Your task to perform on an android device: open app "Messenger Lite" (install if not already installed) Image 0: 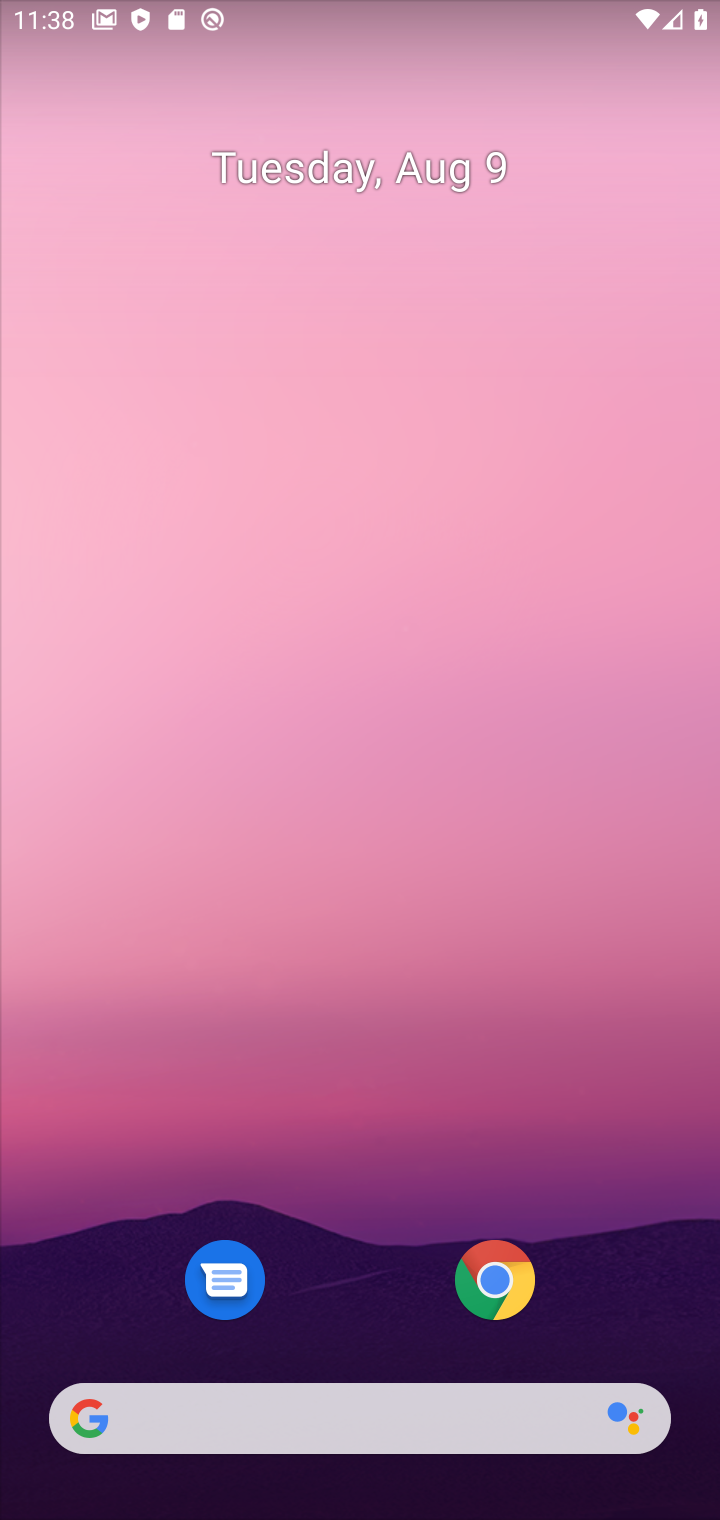
Step 0: drag from (415, 932) to (541, 52)
Your task to perform on an android device: open app "Messenger Lite" (install if not already installed) Image 1: 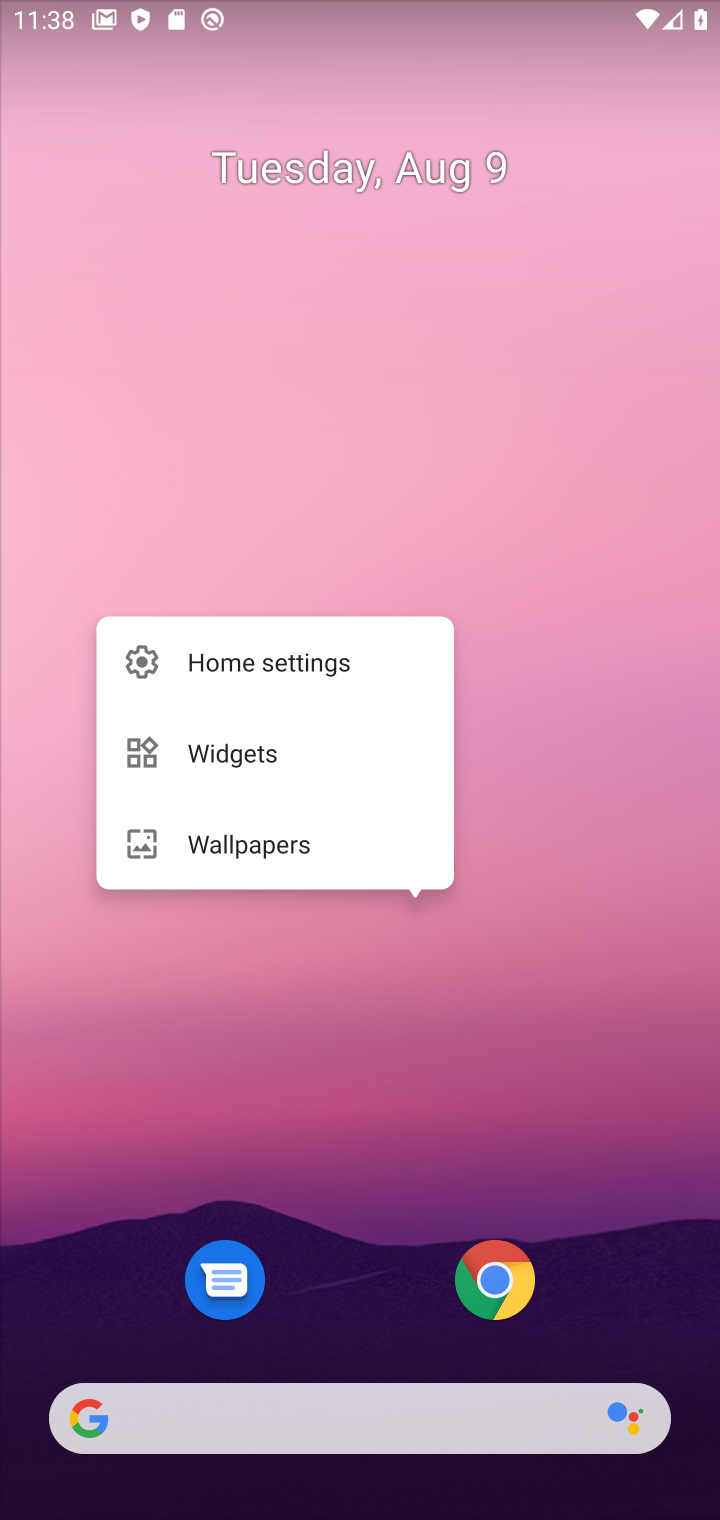
Step 1: click (382, 1147)
Your task to perform on an android device: open app "Messenger Lite" (install if not already installed) Image 2: 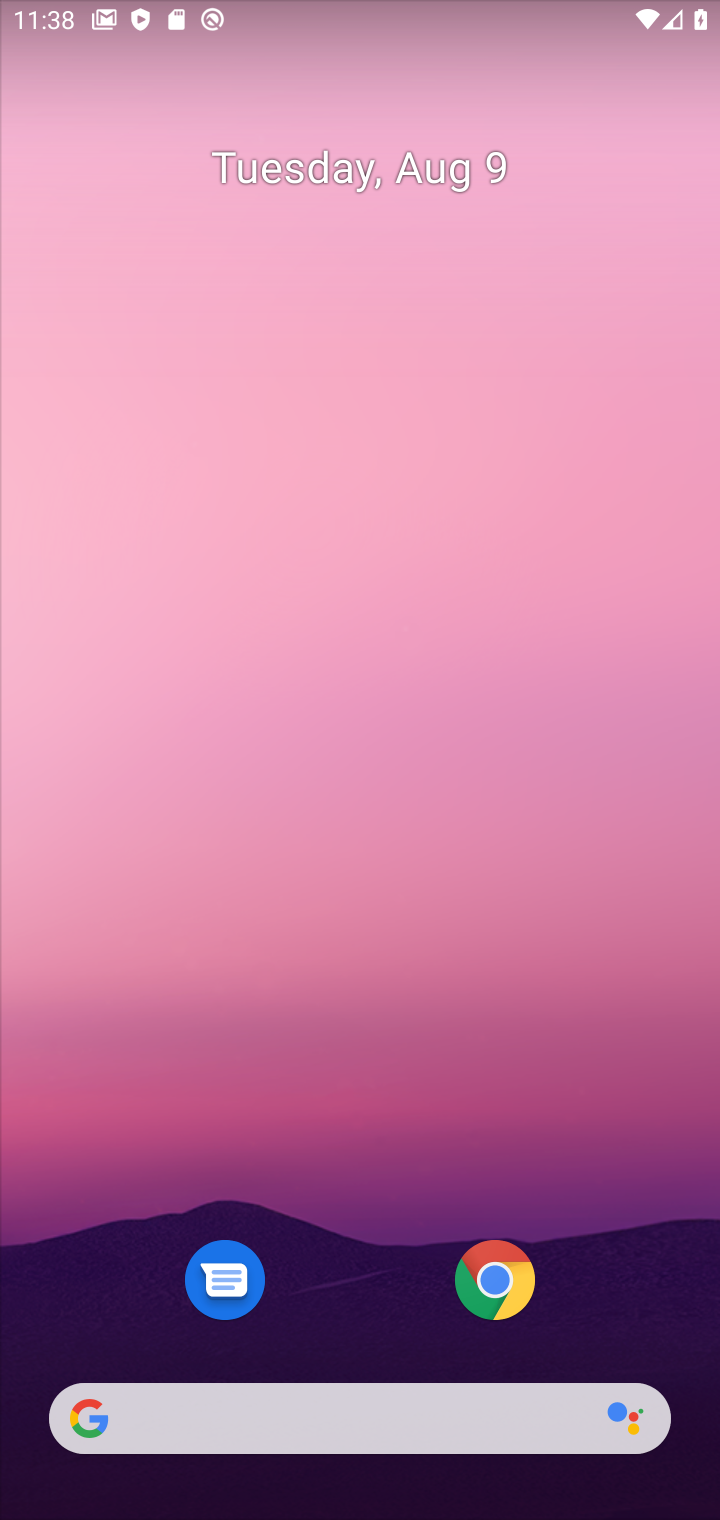
Step 2: drag from (349, 1238) to (577, 71)
Your task to perform on an android device: open app "Messenger Lite" (install if not already installed) Image 3: 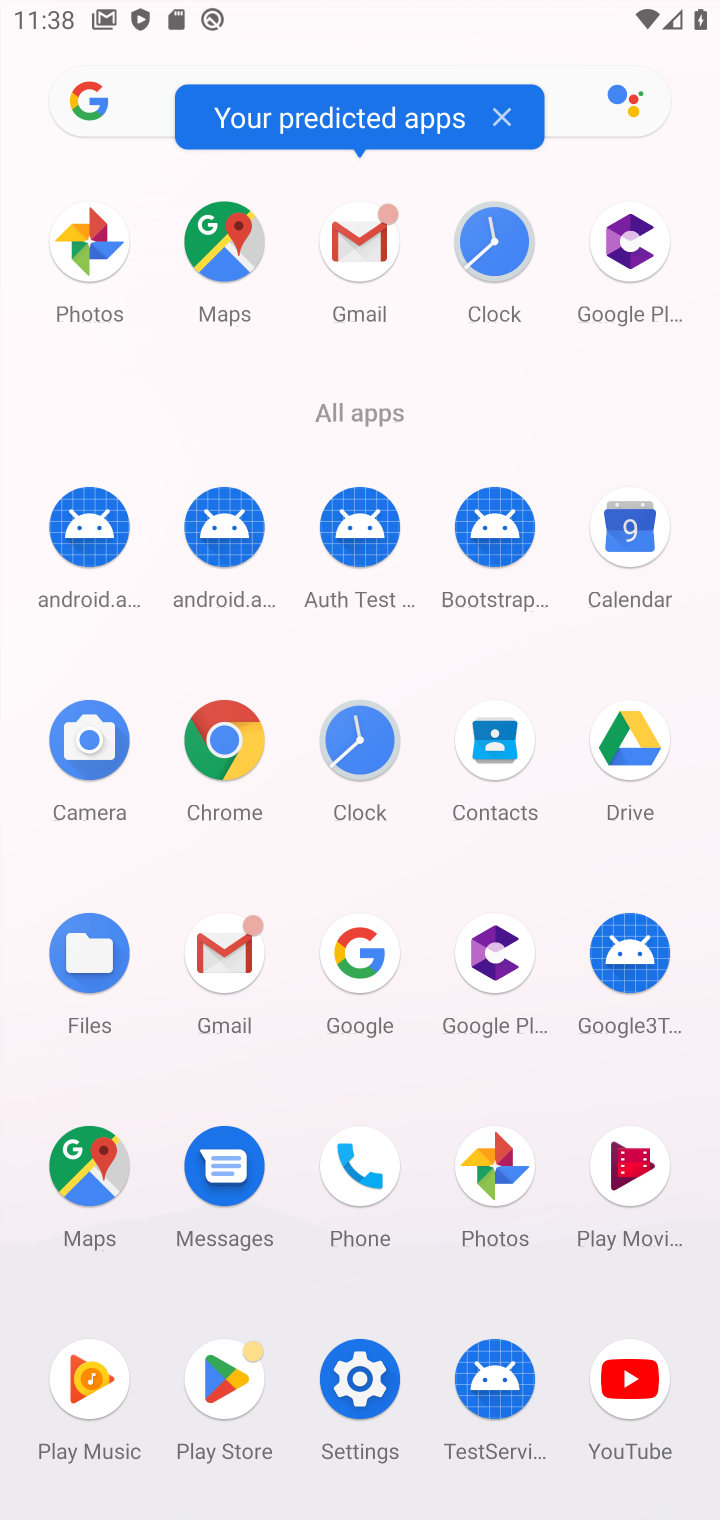
Step 3: click (229, 1375)
Your task to perform on an android device: open app "Messenger Lite" (install if not already installed) Image 4: 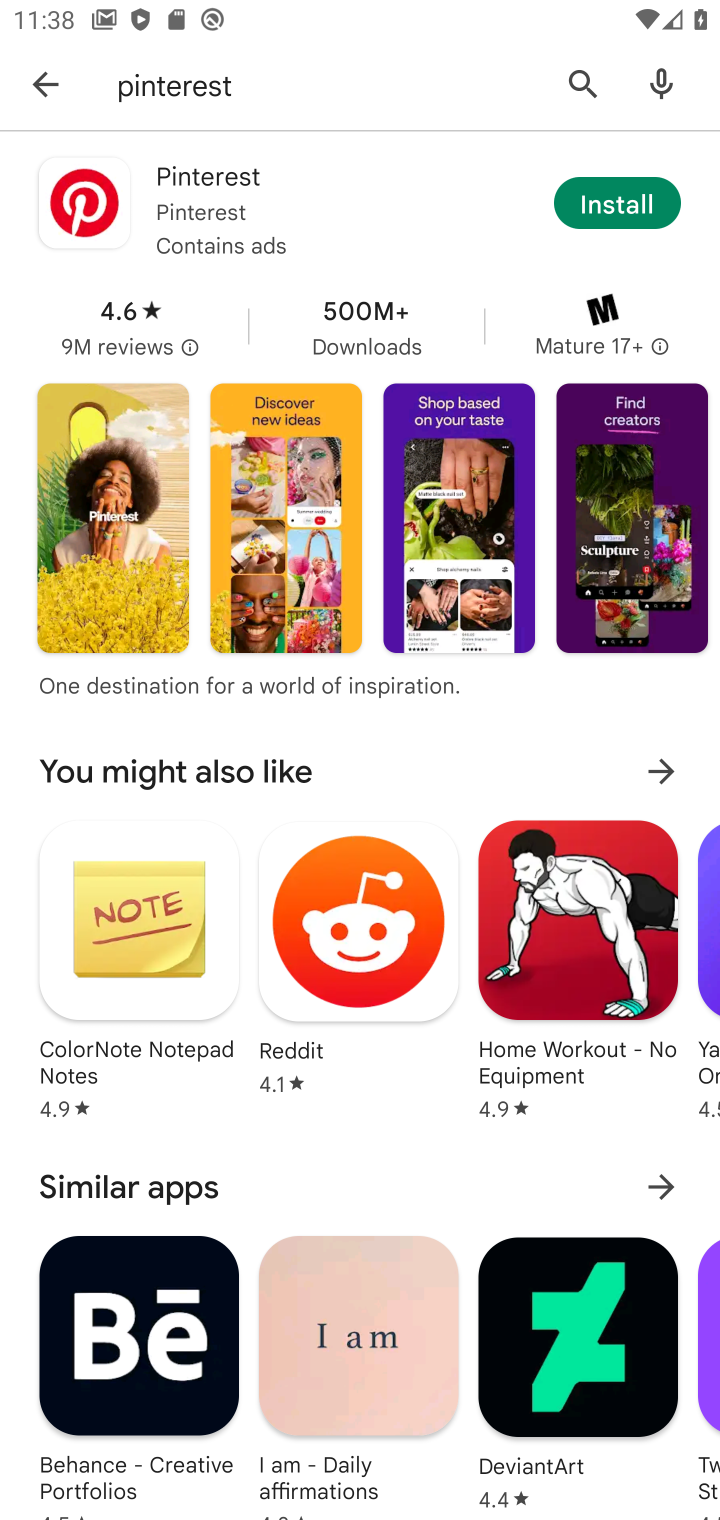
Step 4: click (574, 59)
Your task to perform on an android device: open app "Messenger Lite" (install if not already installed) Image 5: 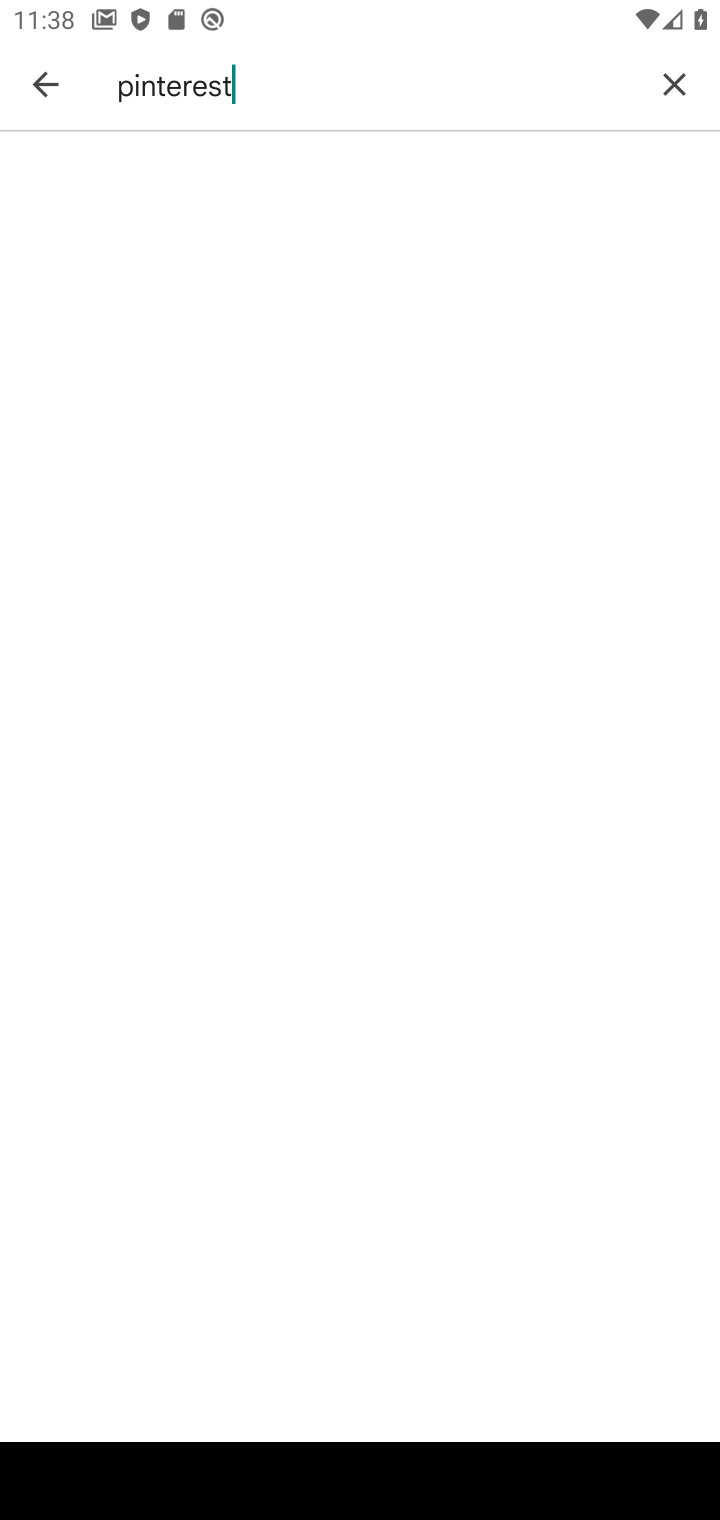
Step 5: click (676, 81)
Your task to perform on an android device: open app "Messenger Lite" (install if not already installed) Image 6: 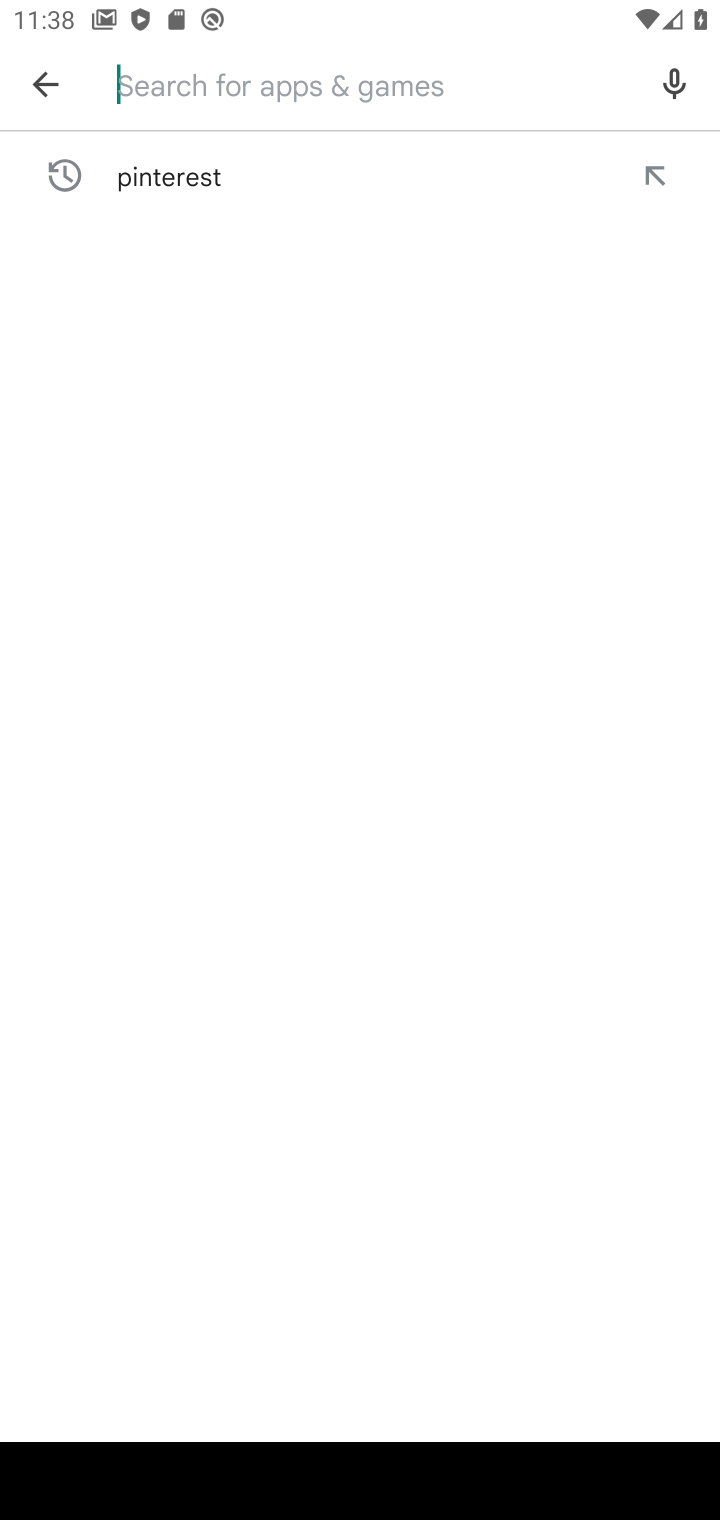
Step 6: click (338, 88)
Your task to perform on an android device: open app "Messenger Lite" (install if not already installed) Image 7: 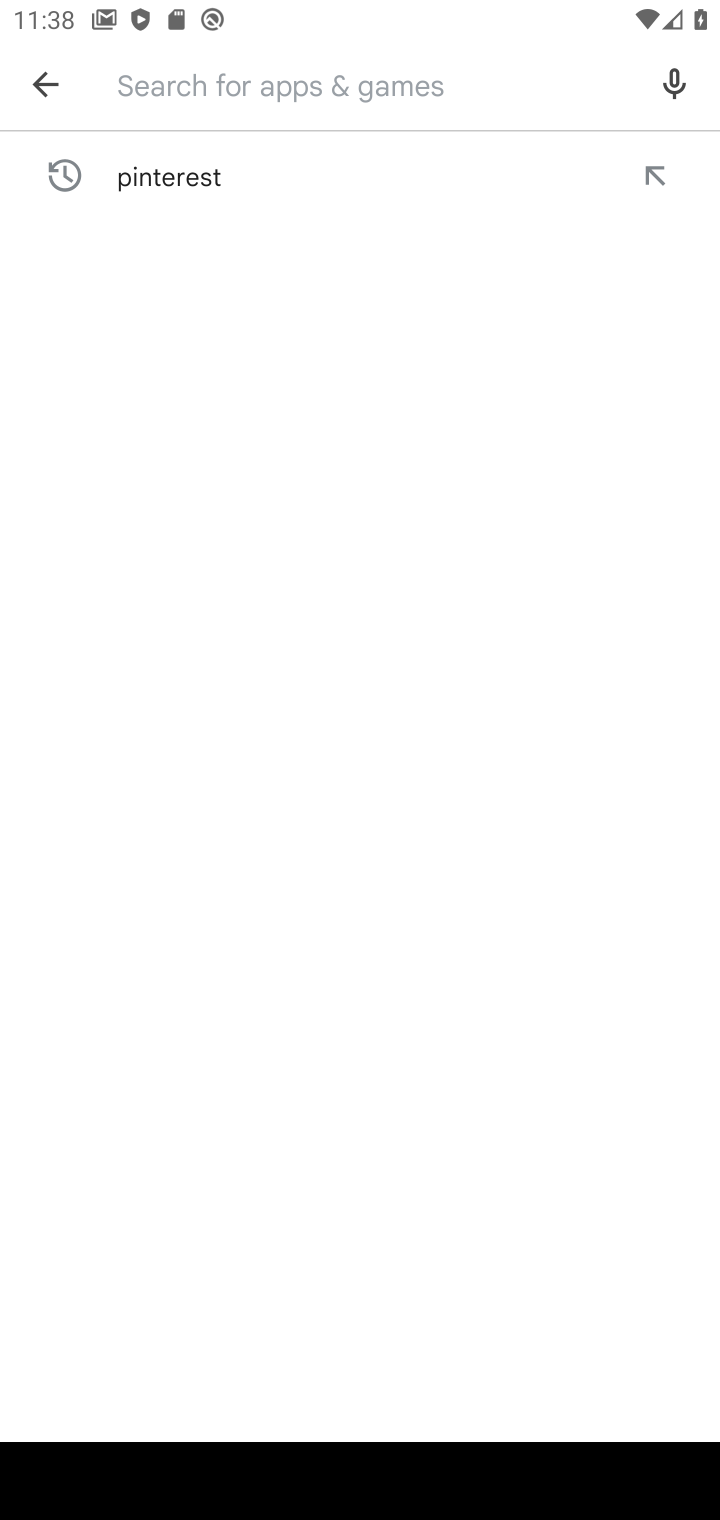
Step 7: click (269, 88)
Your task to perform on an android device: open app "Messenger Lite" (install if not already installed) Image 8: 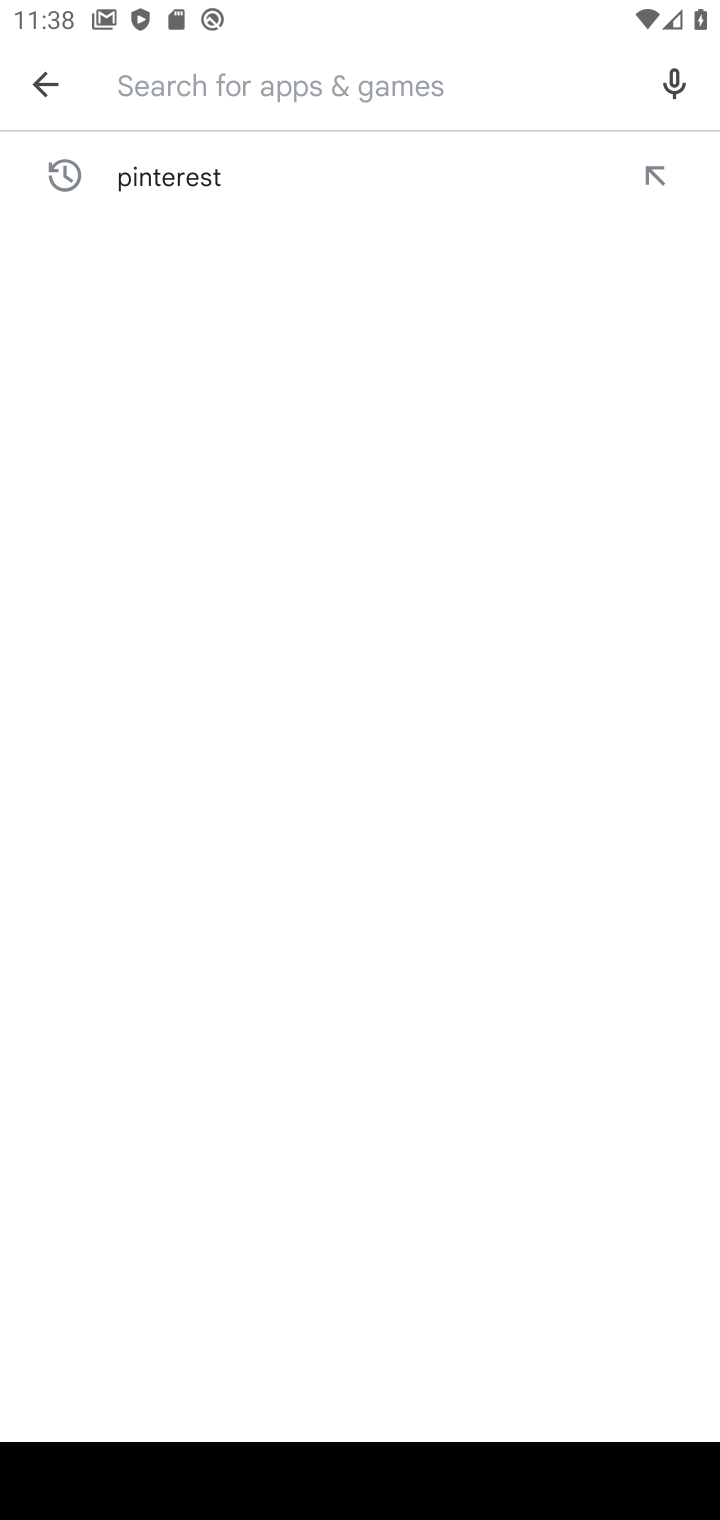
Step 8: type "Messenger Lite"
Your task to perform on an android device: open app "Messenger Lite" (install if not already installed) Image 9: 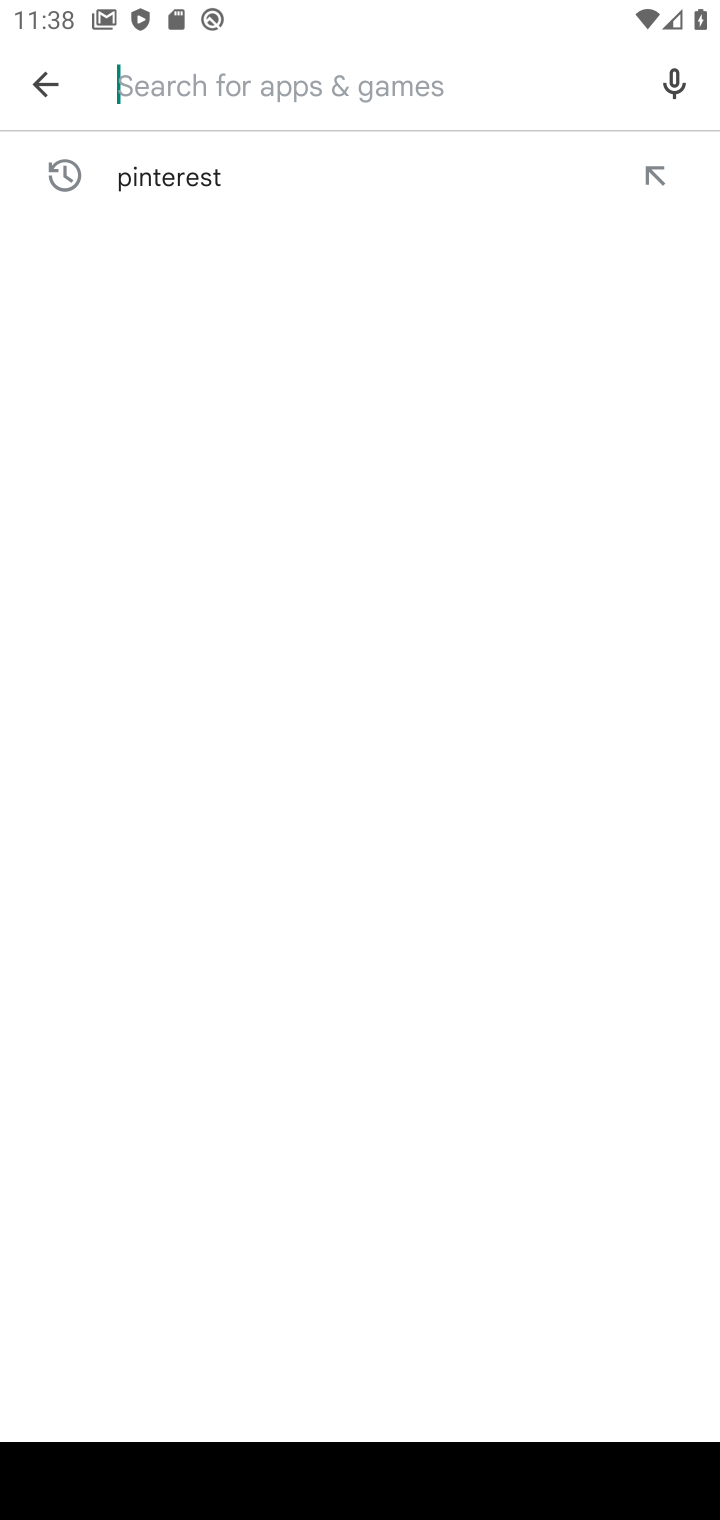
Step 9: click (537, 841)
Your task to perform on an android device: open app "Messenger Lite" (install if not already installed) Image 10: 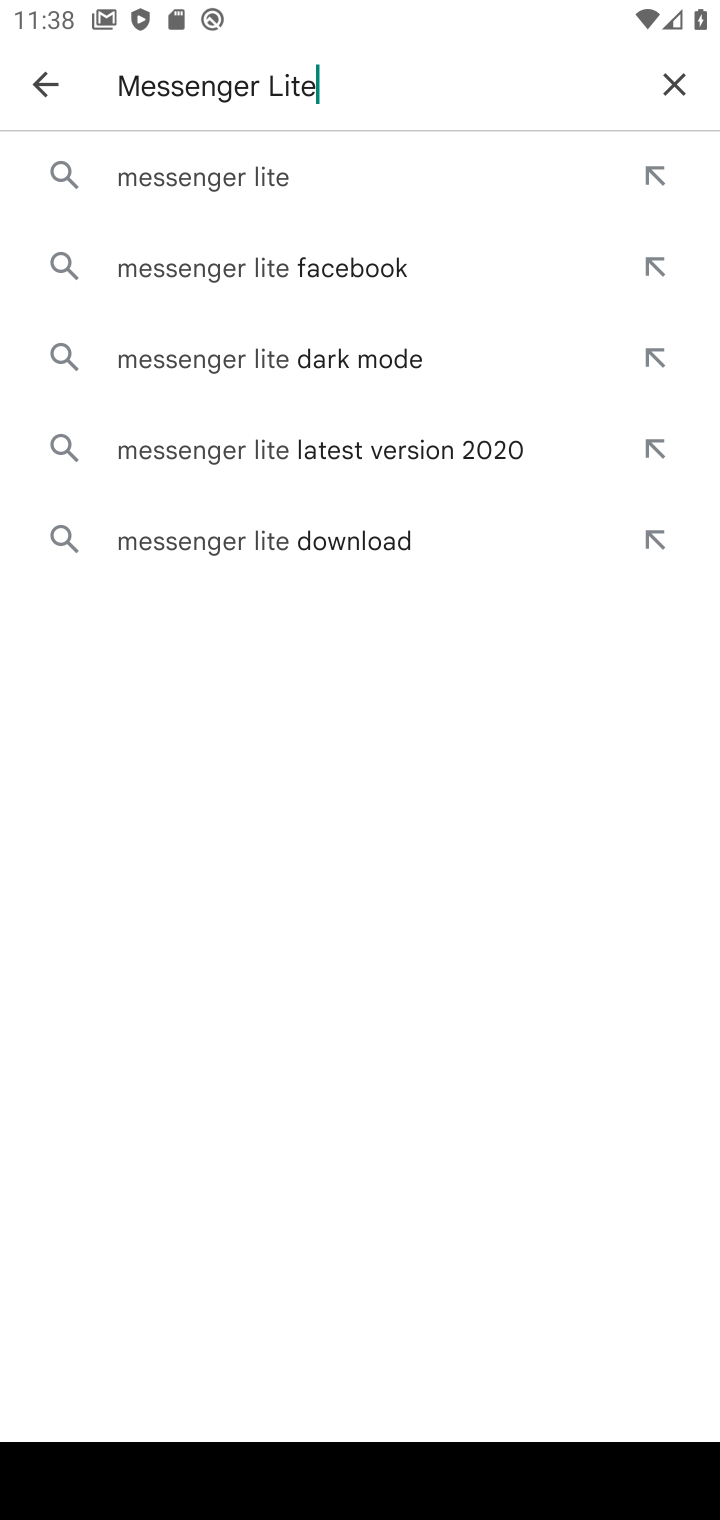
Step 10: click (261, 180)
Your task to perform on an android device: open app "Messenger Lite" (install if not already installed) Image 11: 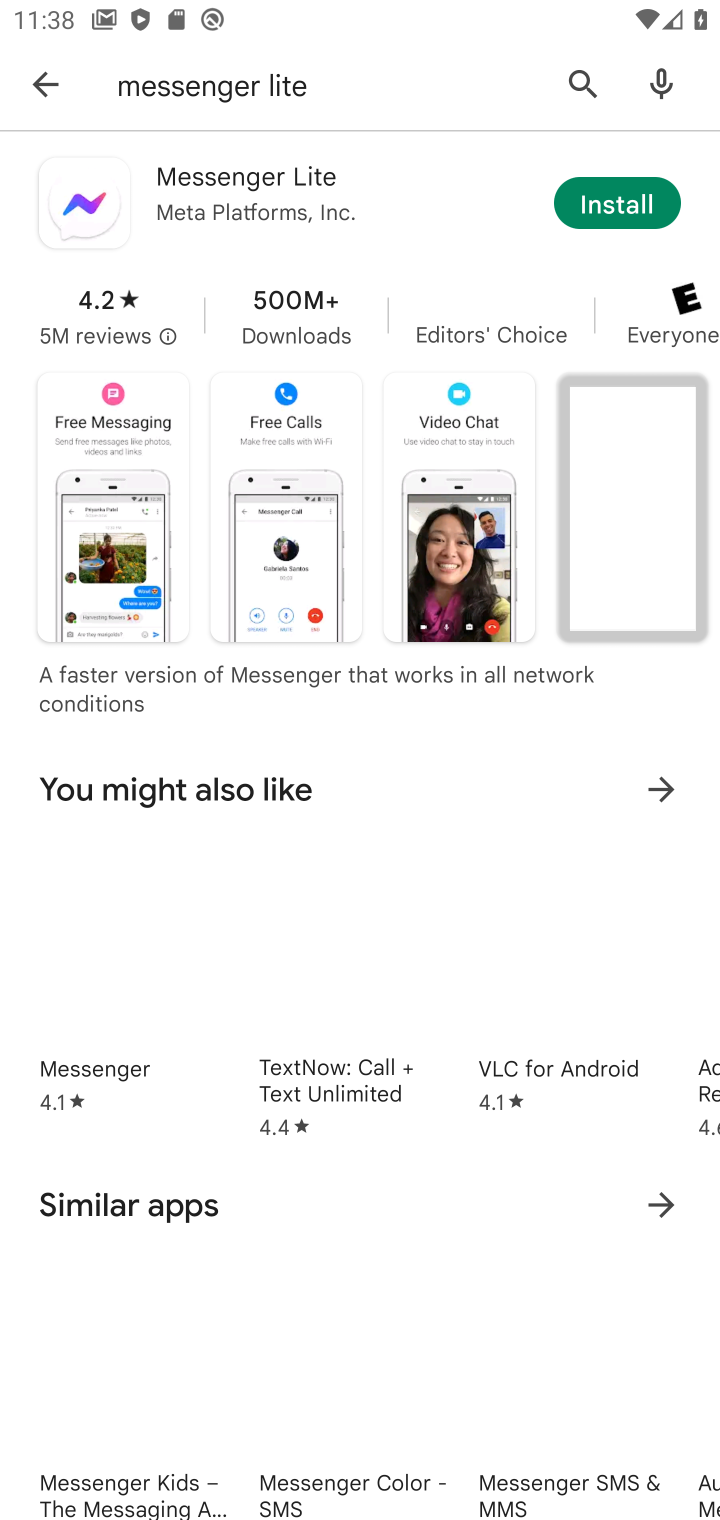
Step 11: click (614, 221)
Your task to perform on an android device: open app "Messenger Lite" (install if not already installed) Image 12: 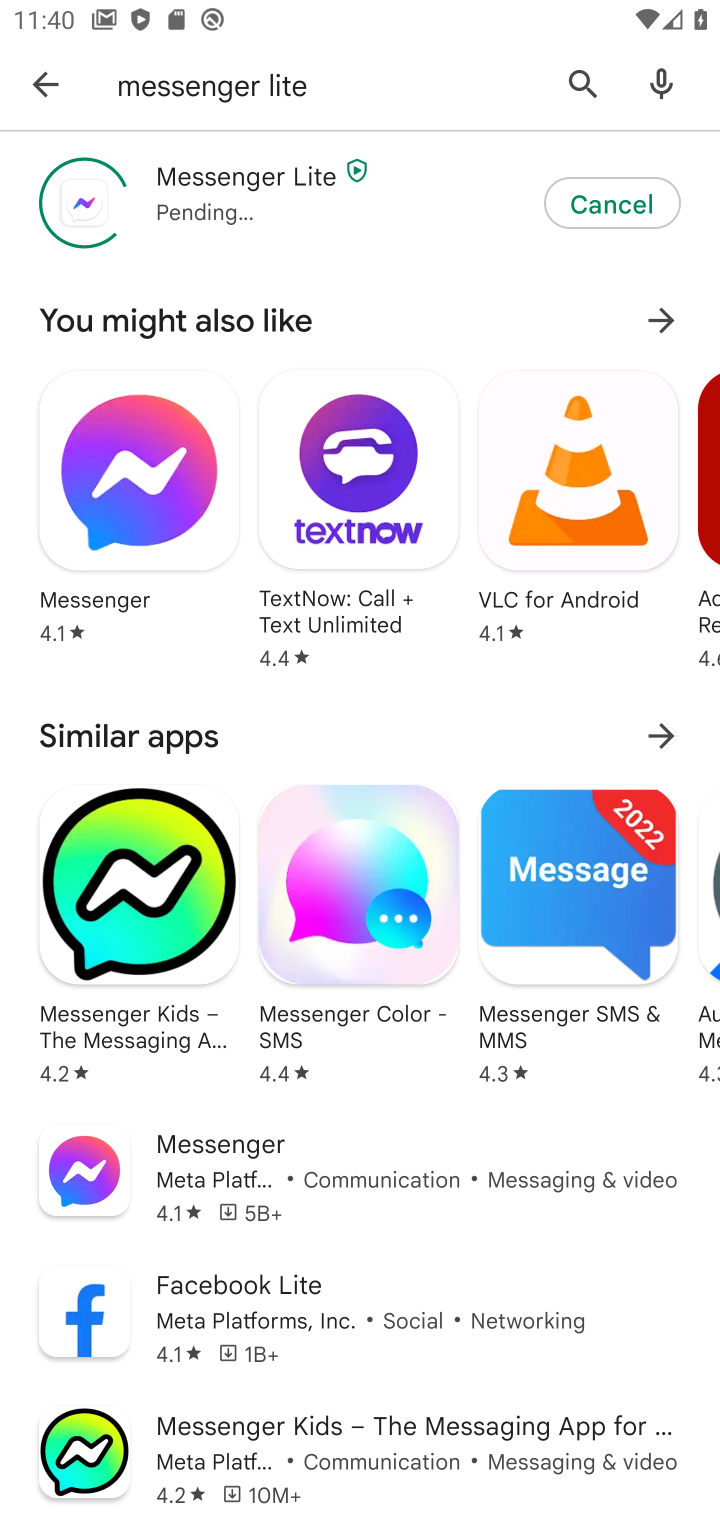
Step 12: click (44, 78)
Your task to perform on an android device: open app "Messenger Lite" (install if not already installed) Image 13: 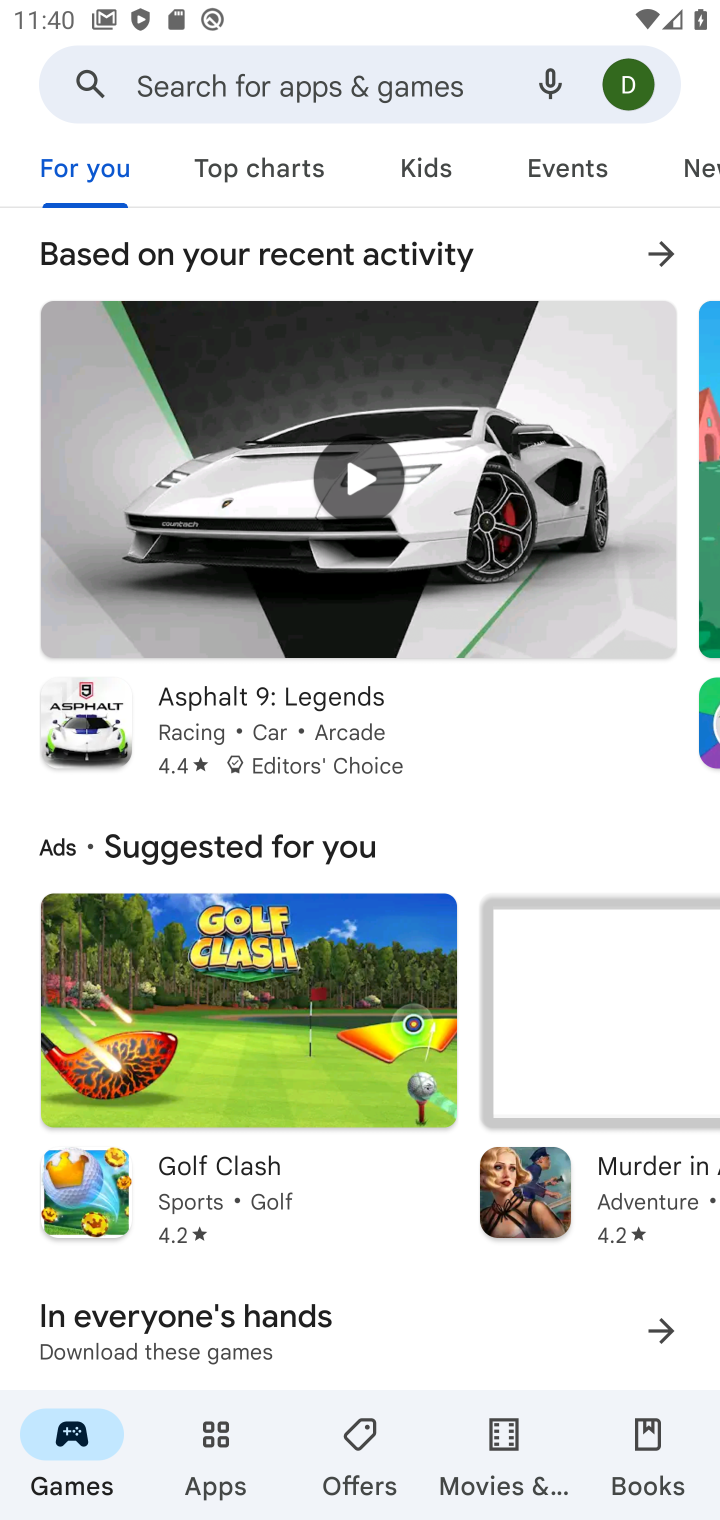
Step 13: click (367, 65)
Your task to perform on an android device: open app "Messenger Lite" (install if not already installed) Image 14: 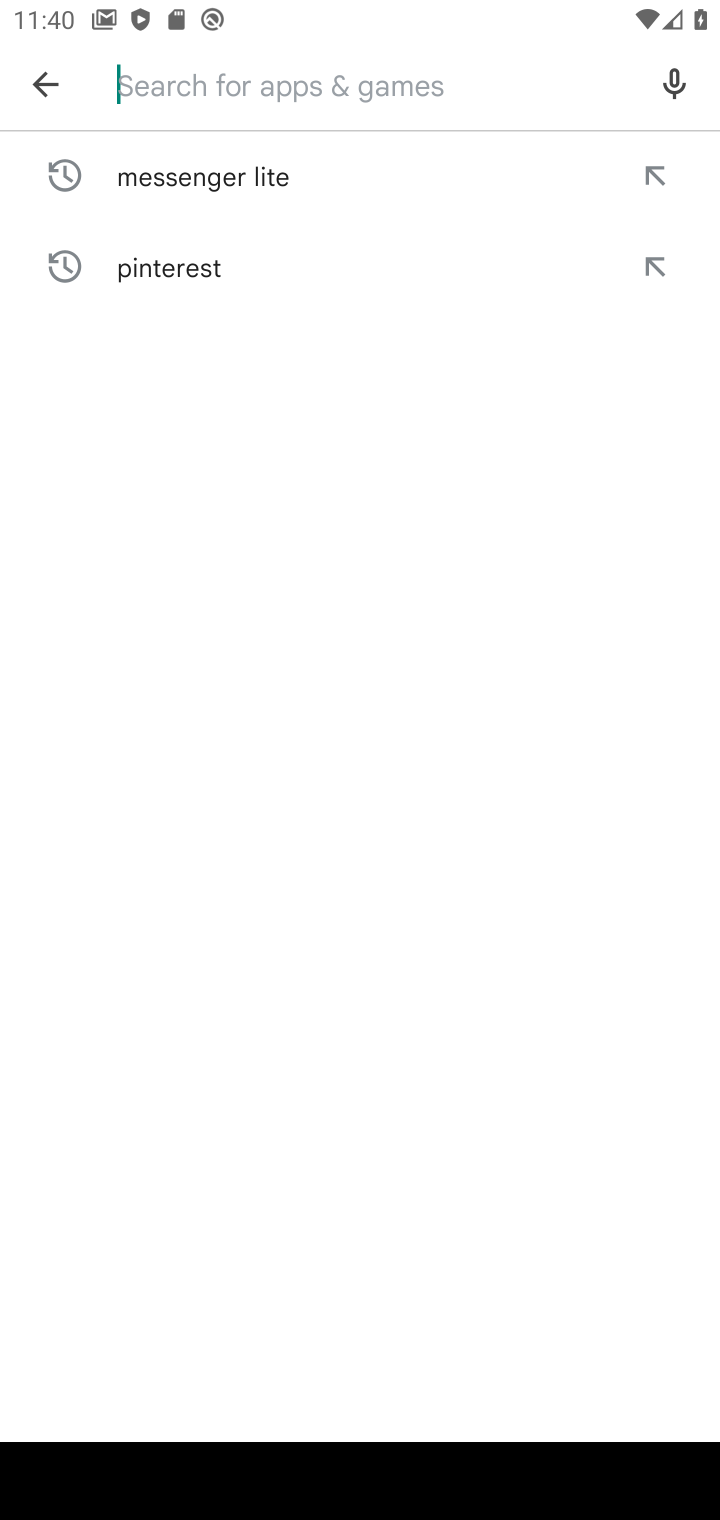
Step 14: click (206, 186)
Your task to perform on an android device: open app "Messenger Lite" (install if not already installed) Image 15: 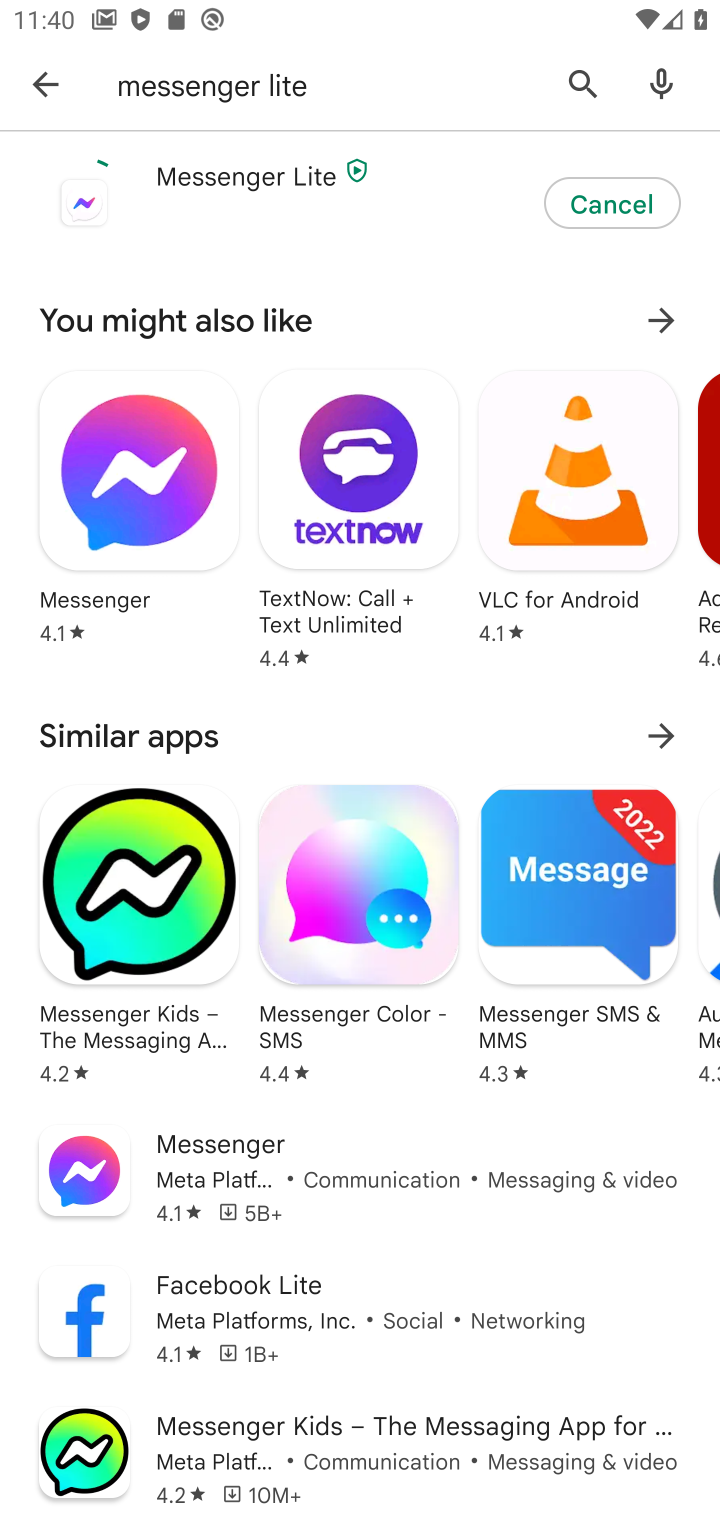
Step 15: click (290, 179)
Your task to perform on an android device: open app "Messenger Lite" (install if not already installed) Image 16: 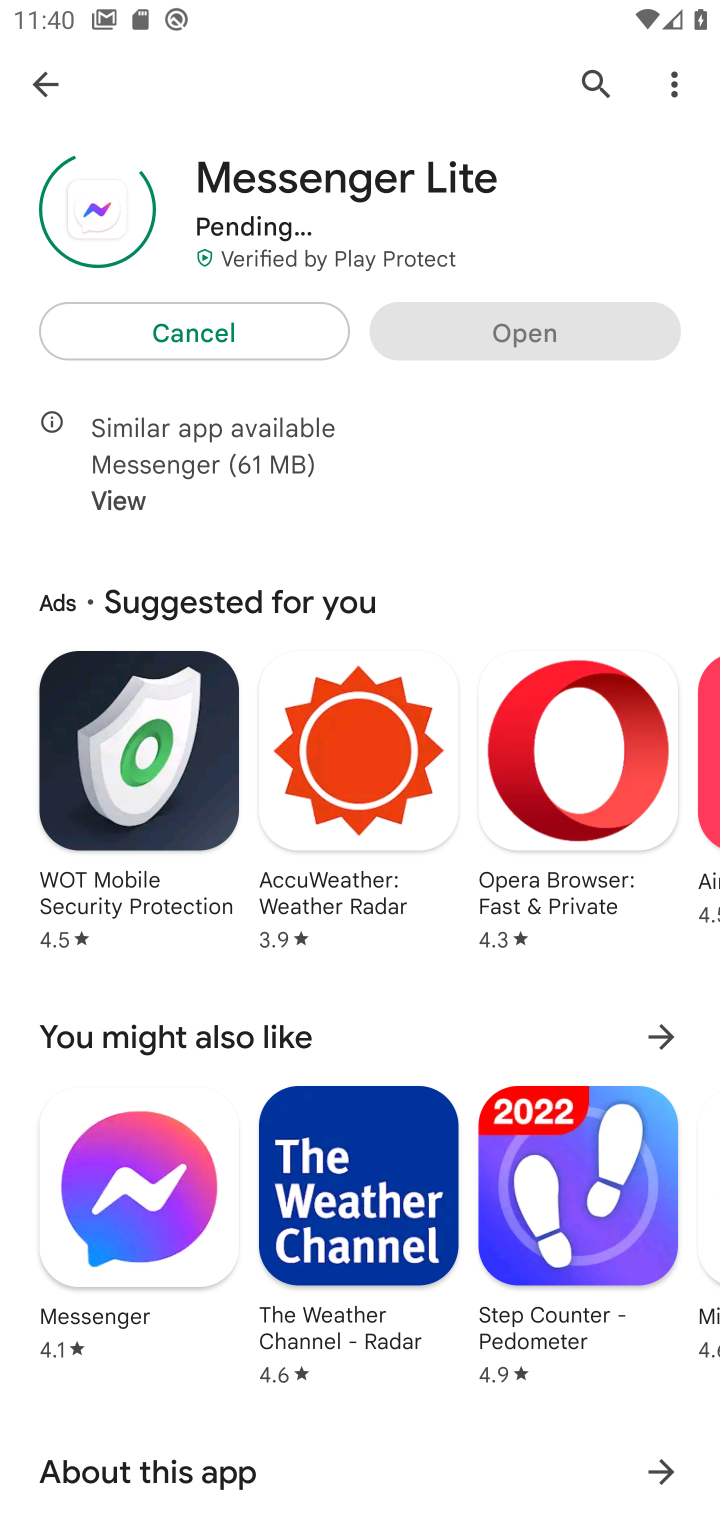
Step 16: click (210, 327)
Your task to perform on an android device: open app "Messenger Lite" (install if not already installed) Image 17: 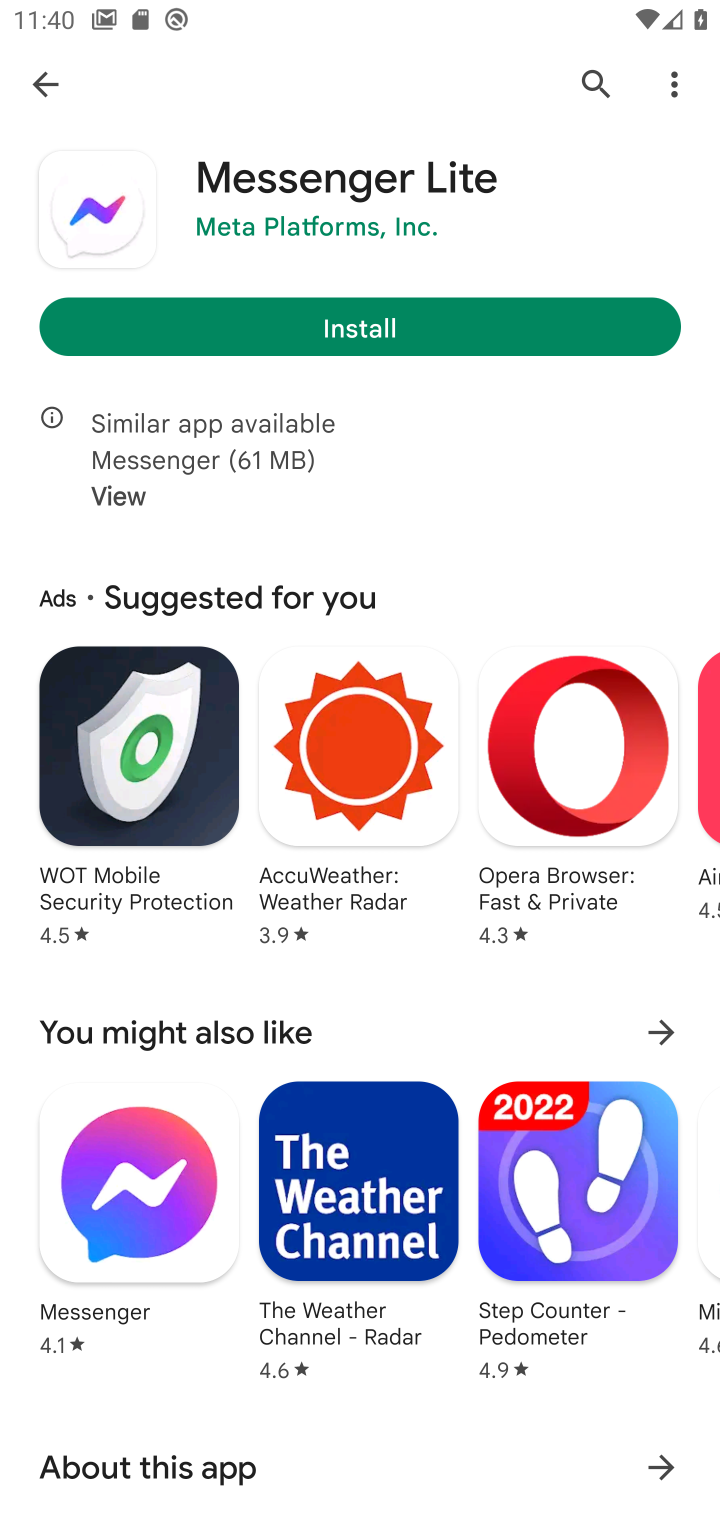
Step 17: click (383, 330)
Your task to perform on an android device: open app "Messenger Lite" (install if not already installed) Image 18: 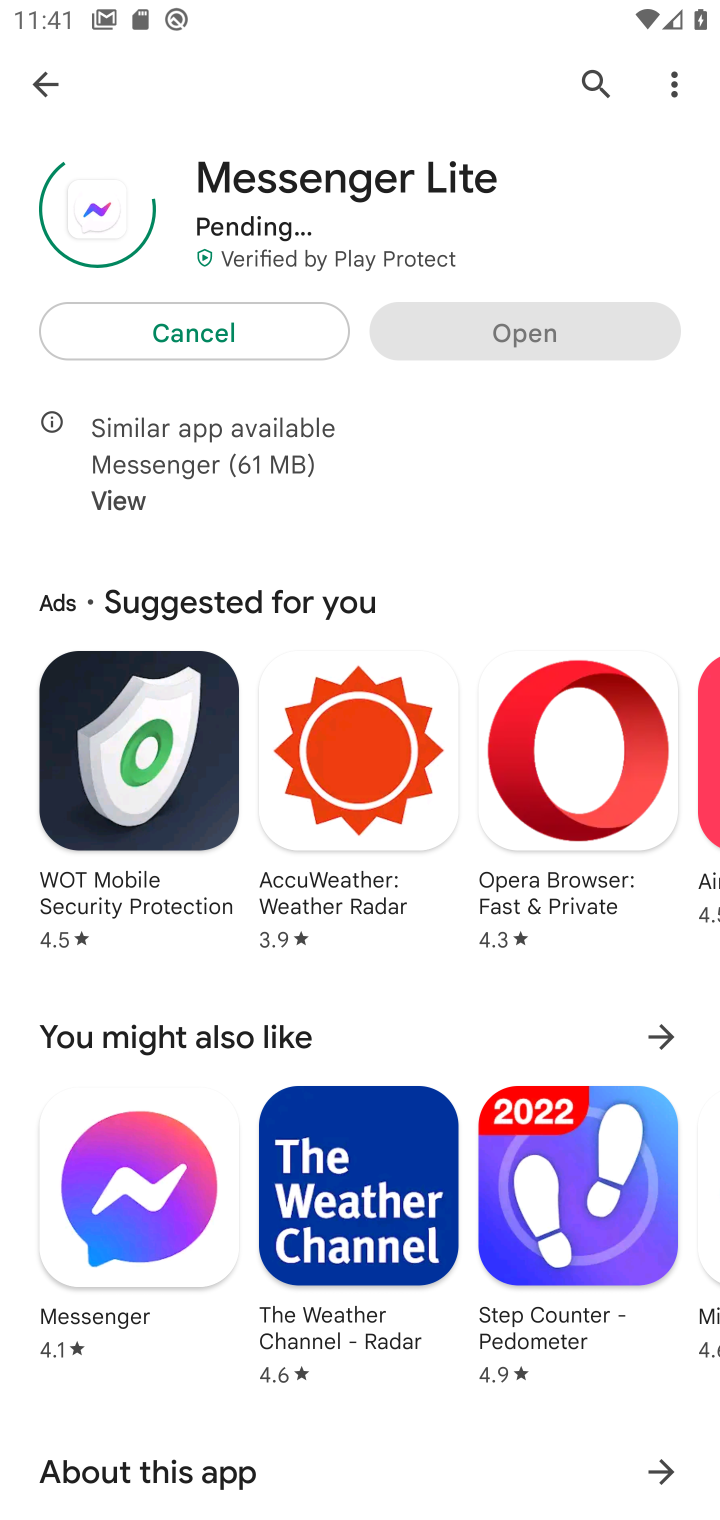
Step 18: press back button
Your task to perform on an android device: open app "Messenger Lite" (install if not already installed) Image 19: 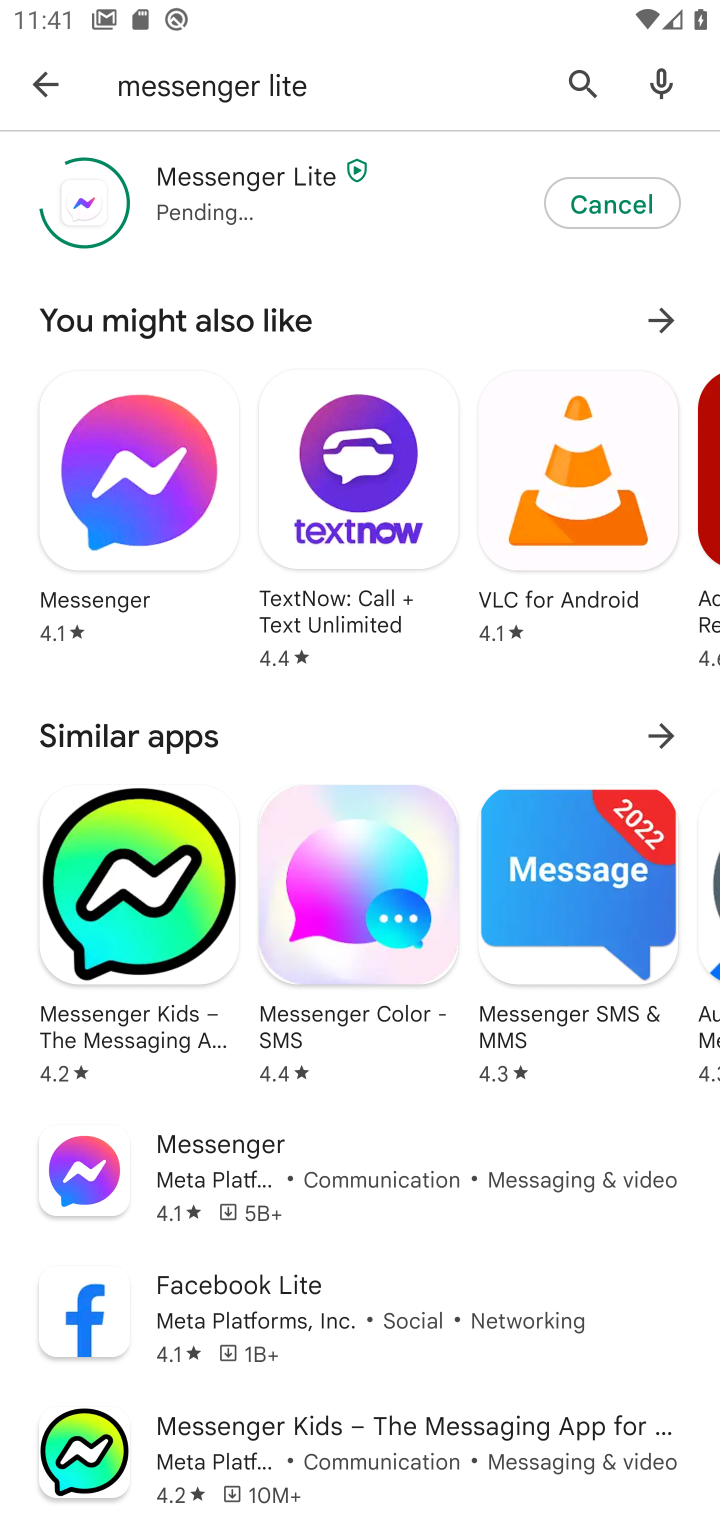
Step 19: press back button
Your task to perform on an android device: open app "Messenger Lite" (install if not already installed) Image 20: 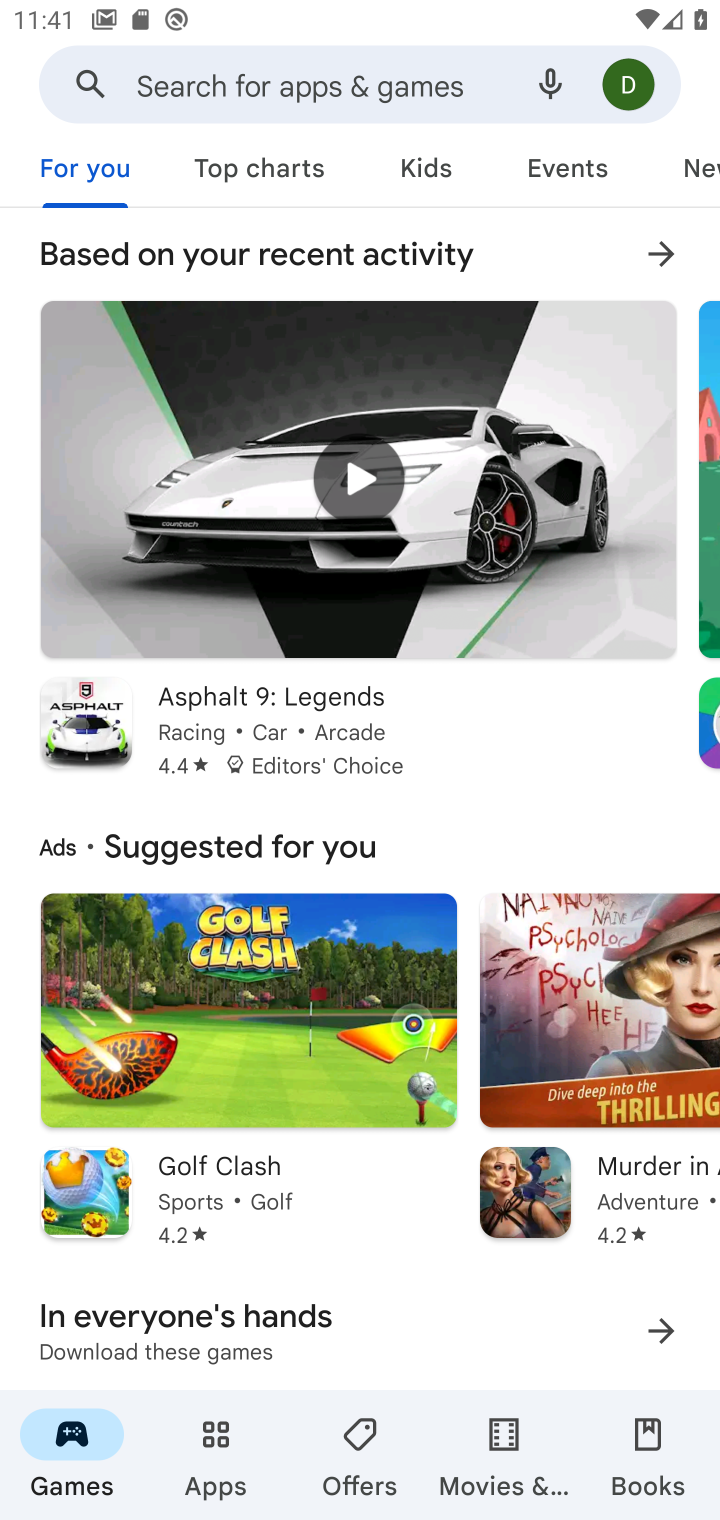
Step 20: click (363, 80)
Your task to perform on an android device: open app "Messenger Lite" (install if not already installed) Image 21: 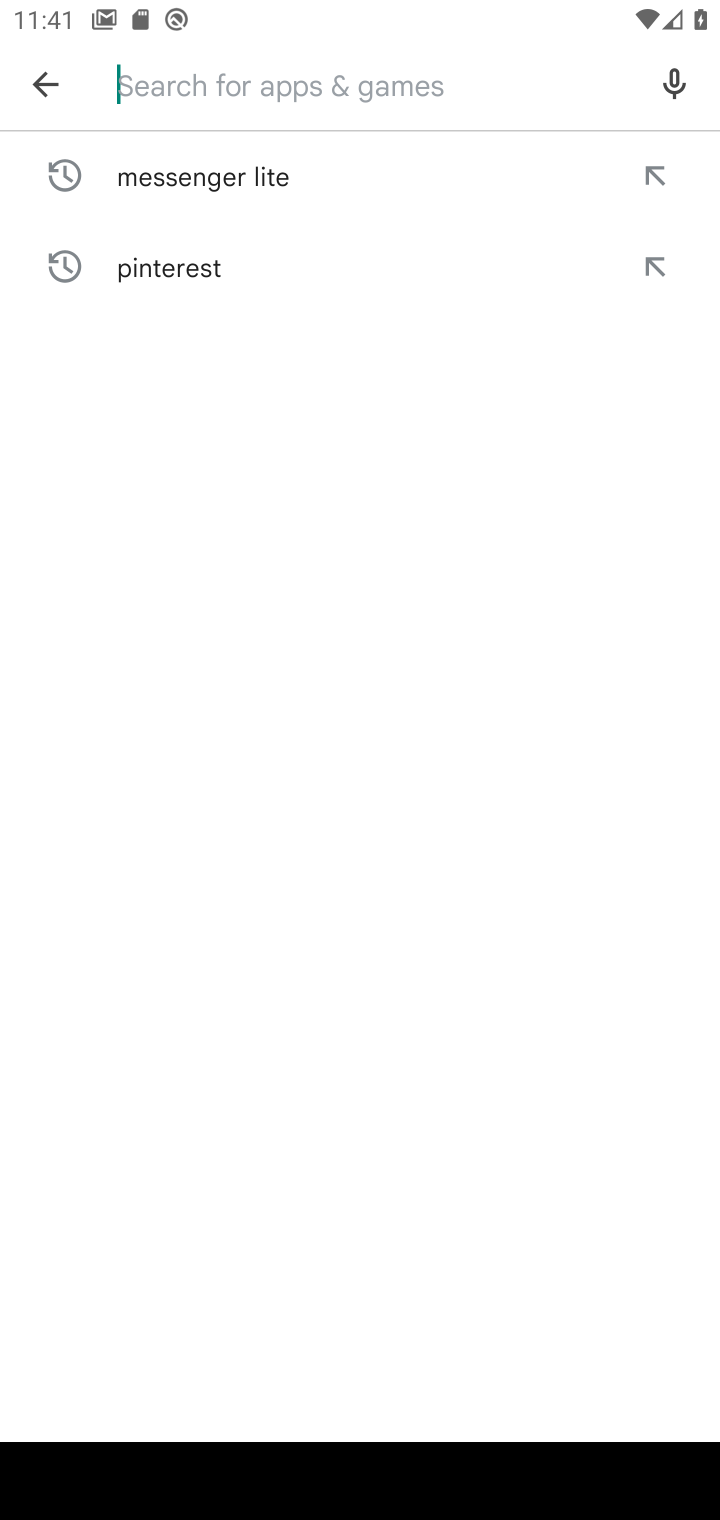
Step 21: click (244, 197)
Your task to perform on an android device: open app "Messenger Lite" (install if not already installed) Image 22: 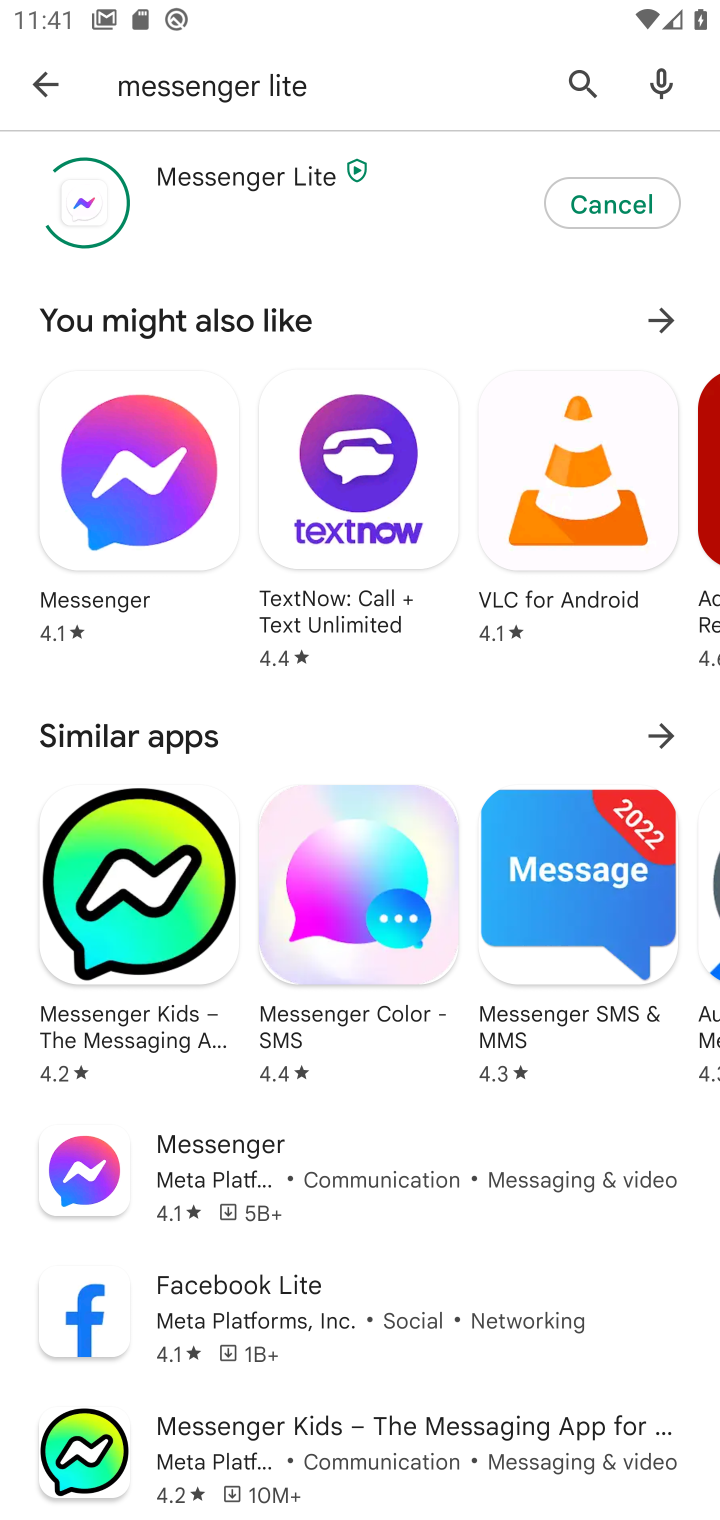
Step 22: task complete